Your task to perform on an android device: add a contact Image 0: 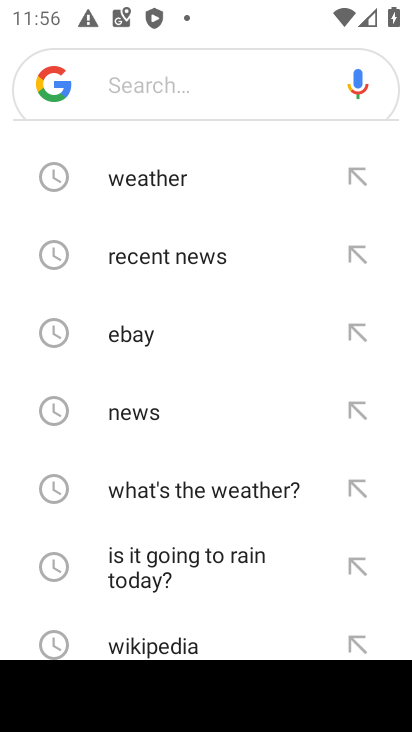
Step 0: press home button
Your task to perform on an android device: add a contact Image 1: 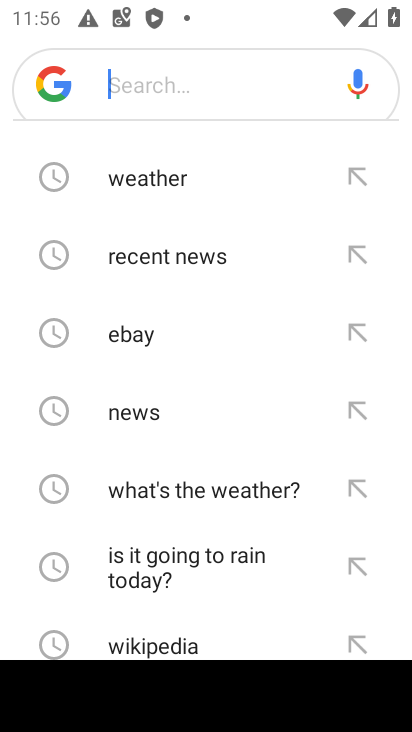
Step 1: press home button
Your task to perform on an android device: add a contact Image 2: 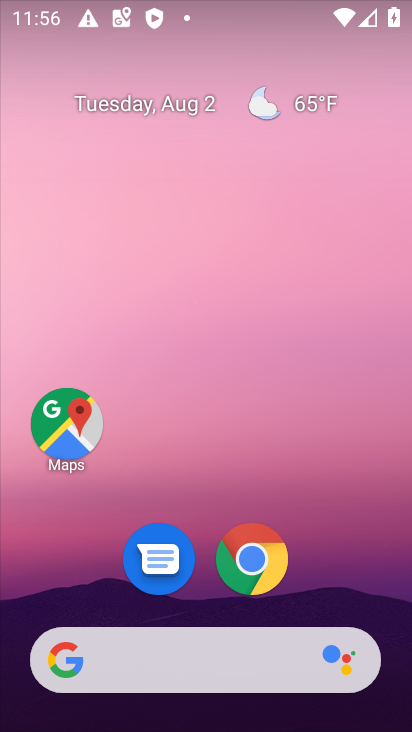
Step 2: drag from (207, 586) to (222, 101)
Your task to perform on an android device: add a contact Image 3: 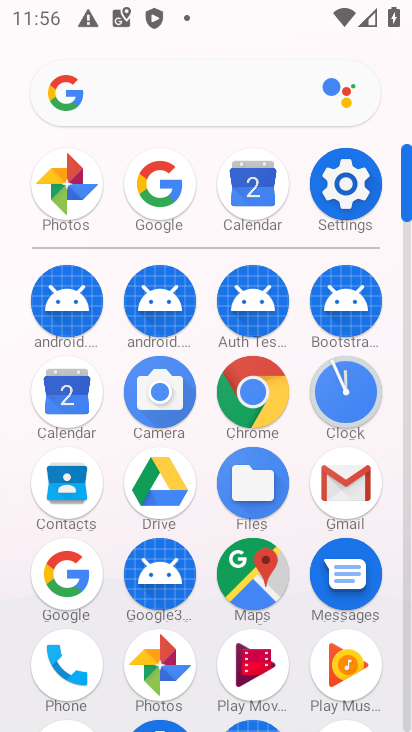
Step 3: click (68, 485)
Your task to perform on an android device: add a contact Image 4: 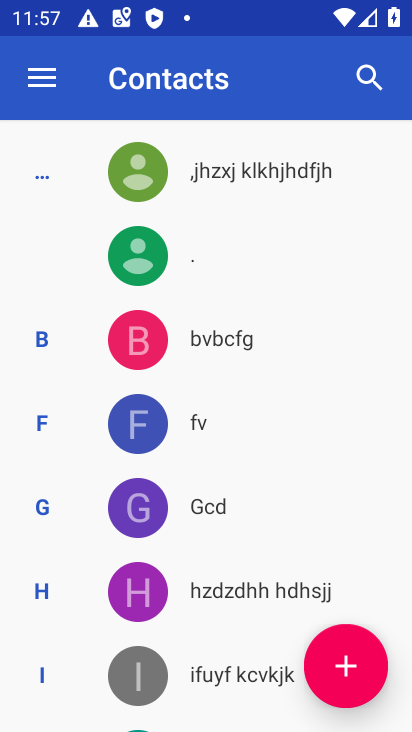
Step 4: click (347, 660)
Your task to perform on an android device: add a contact Image 5: 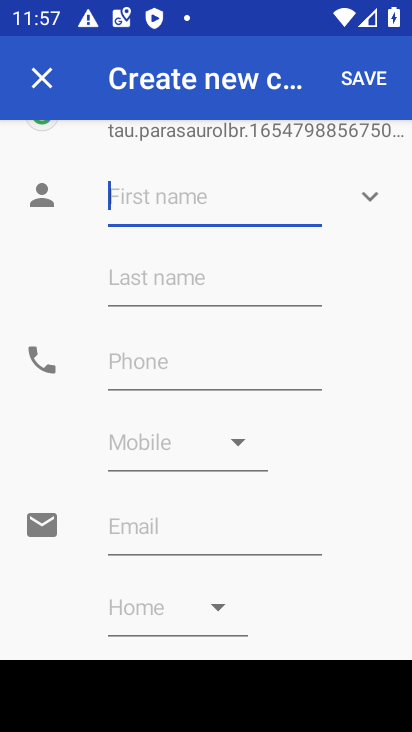
Step 5: type "kashi"
Your task to perform on an android device: add a contact Image 6: 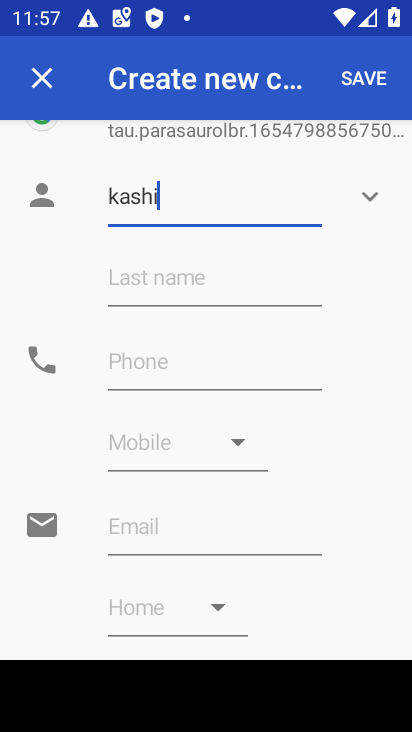
Step 6: click (141, 367)
Your task to perform on an android device: add a contact Image 7: 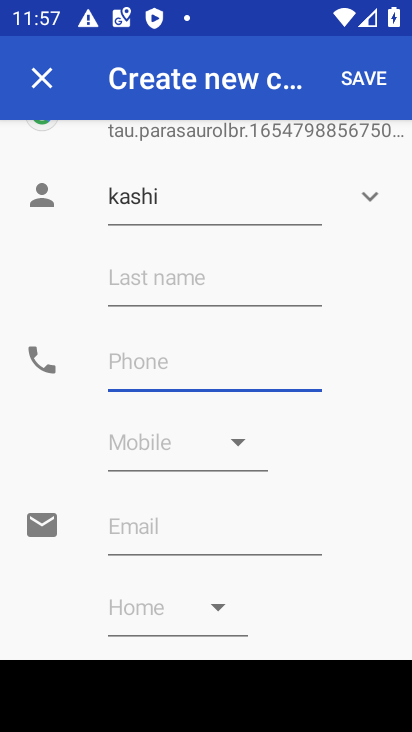
Step 7: type "5656"
Your task to perform on an android device: add a contact Image 8: 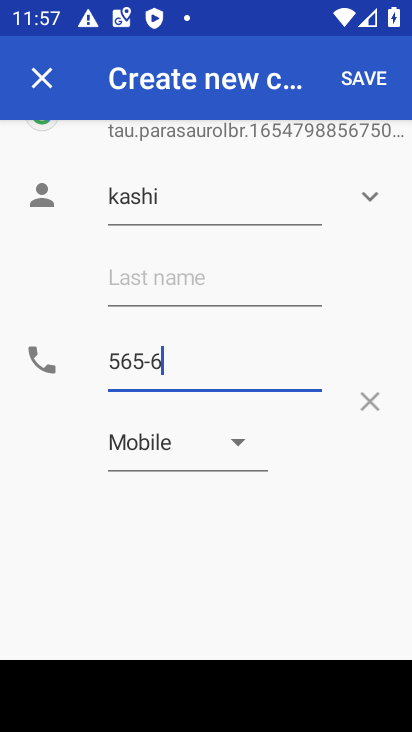
Step 8: type ""
Your task to perform on an android device: add a contact Image 9: 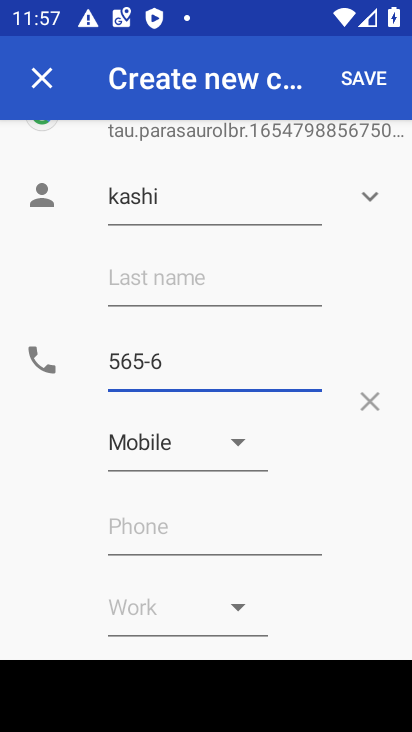
Step 9: click (357, 76)
Your task to perform on an android device: add a contact Image 10: 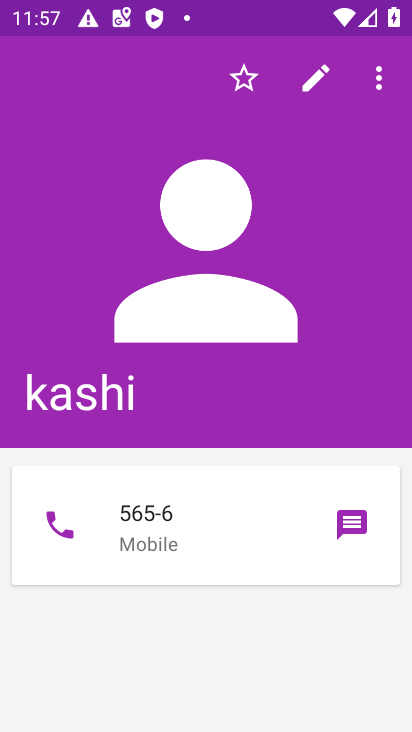
Step 10: task complete